Your task to perform on an android device: delete the emails in spam in the gmail app Image 0: 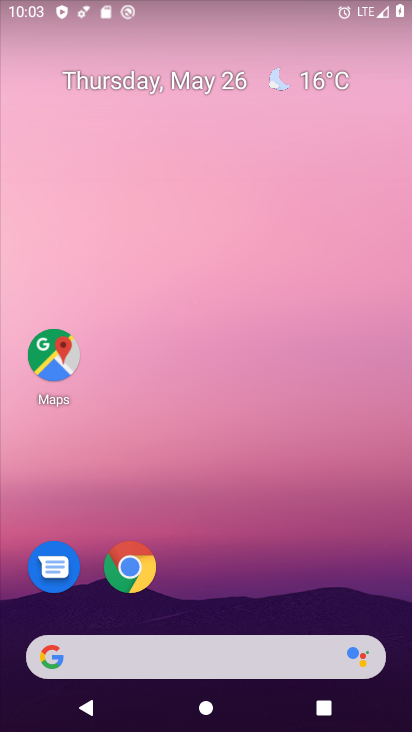
Step 0: drag from (393, 707) to (296, 205)
Your task to perform on an android device: delete the emails in spam in the gmail app Image 1: 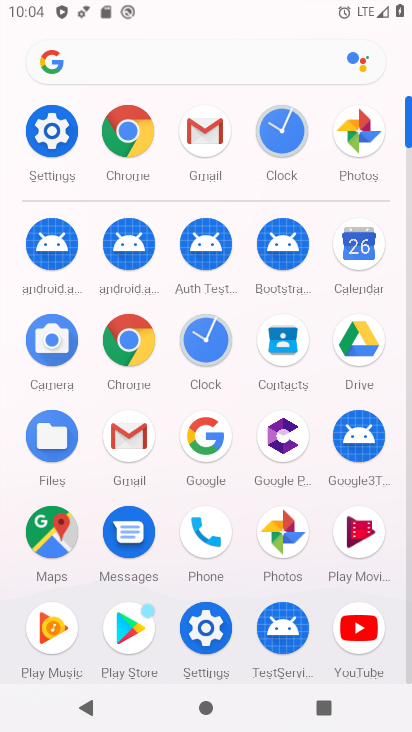
Step 1: click (116, 435)
Your task to perform on an android device: delete the emails in spam in the gmail app Image 2: 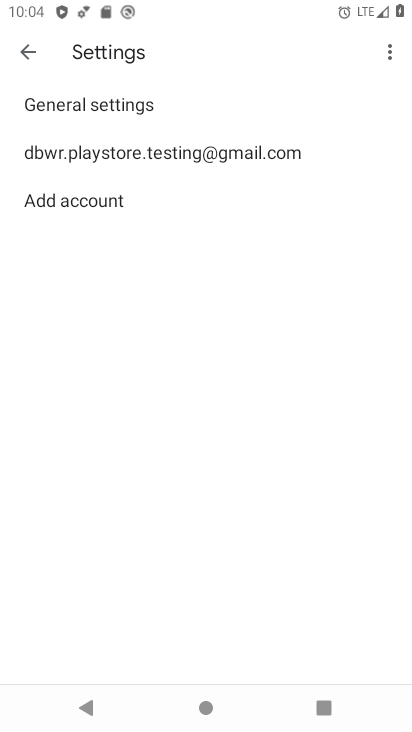
Step 2: click (22, 58)
Your task to perform on an android device: delete the emails in spam in the gmail app Image 3: 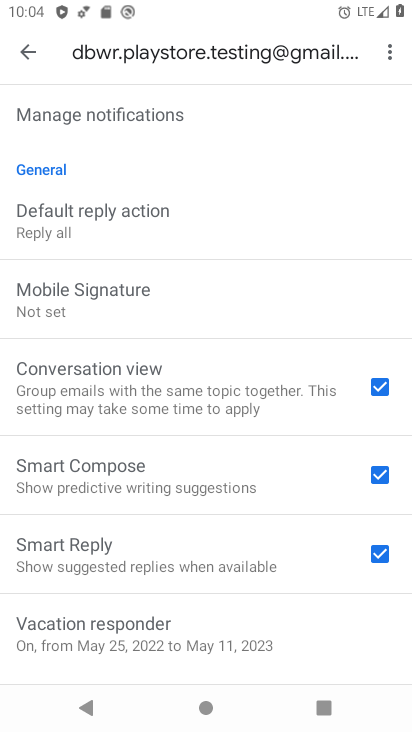
Step 3: click (14, 53)
Your task to perform on an android device: delete the emails in spam in the gmail app Image 4: 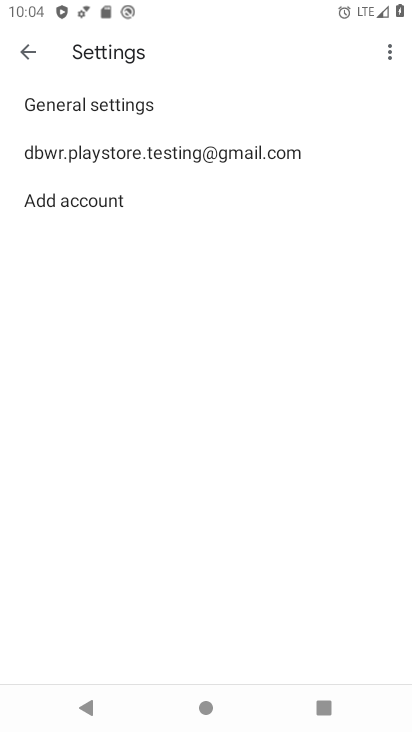
Step 4: click (23, 55)
Your task to perform on an android device: delete the emails in spam in the gmail app Image 5: 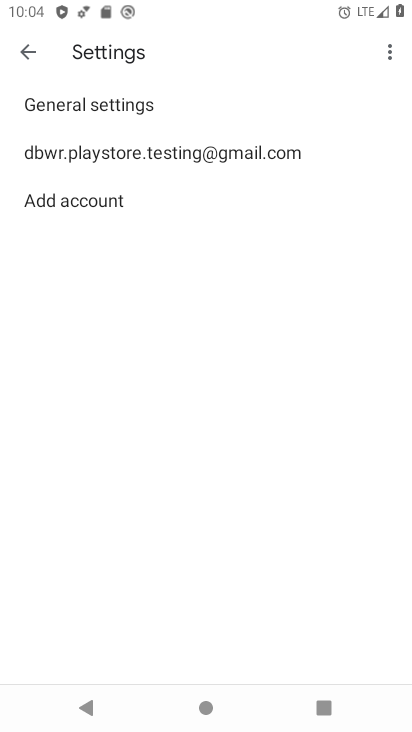
Step 5: click (20, 57)
Your task to perform on an android device: delete the emails in spam in the gmail app Image 6: 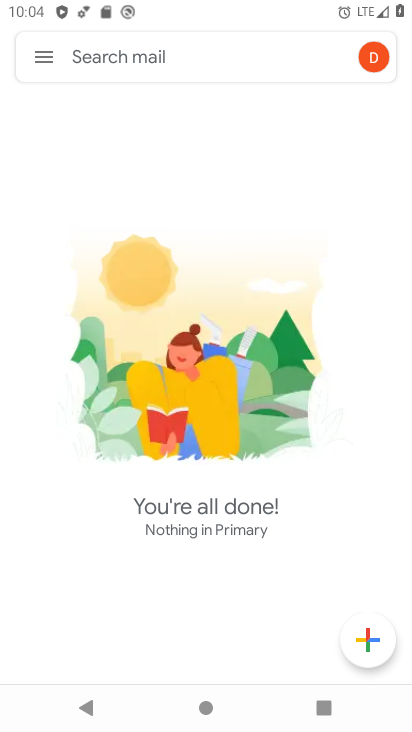
Step 6: click (40, 56)
Your task to perform on an android device: delete the emails in spam in the gmail app Image 7: 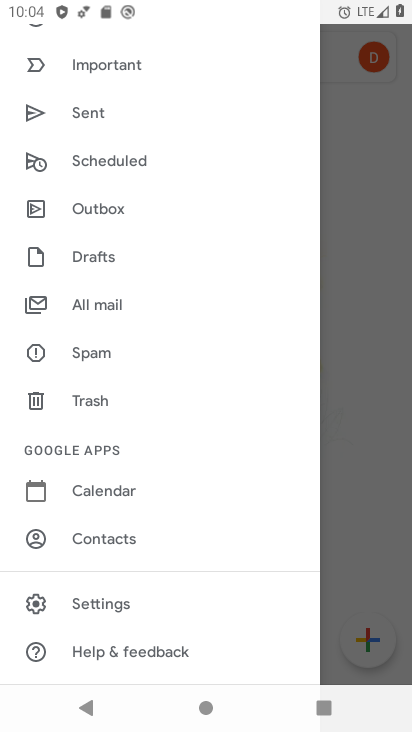
Step 7: click (69, 350)
Your task to perform on an android device: delete the emails in spam in the gmail app Image 8: 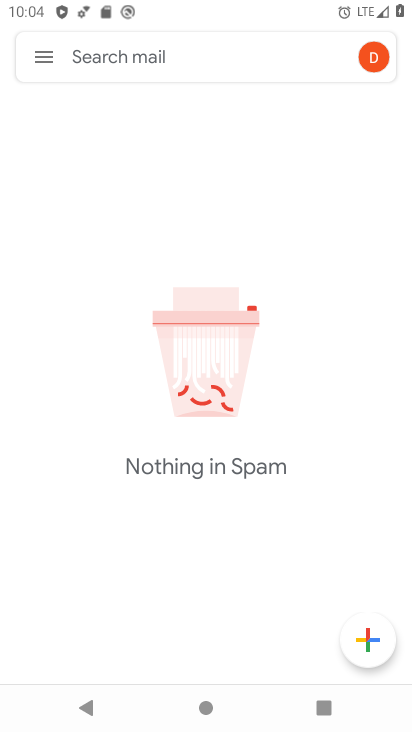
Step 8: task complete